Your task to perform on an android device: Open internet settings Image 0: 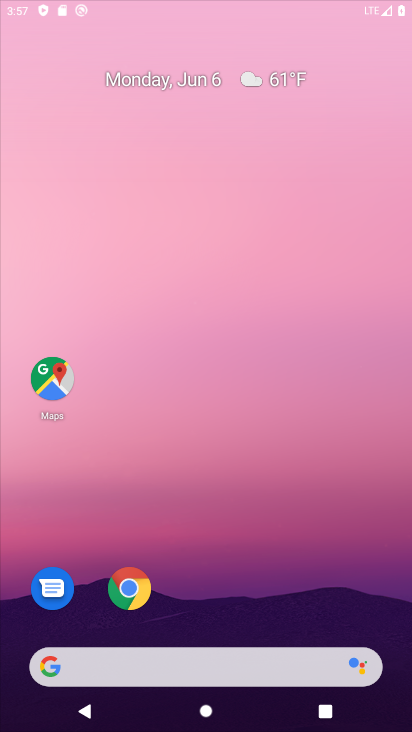
Step 0: click (252, 36)
Your task to perform on an android device: Open internet settings Image 1: 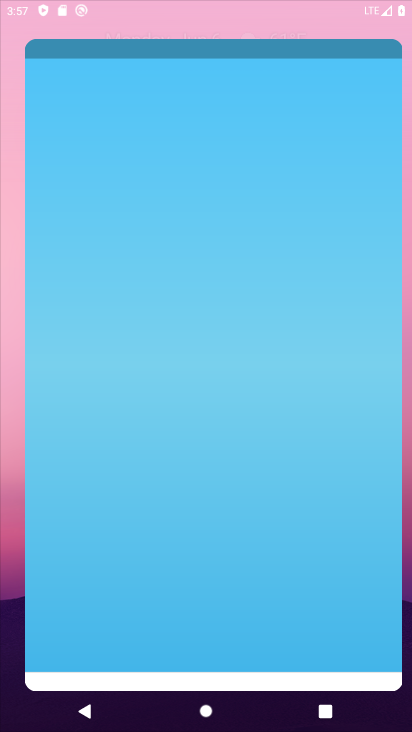
Step 1: drag from (235, 715) to (170, 37)
Your task to perform on an android device: Open internet settings Image 2: 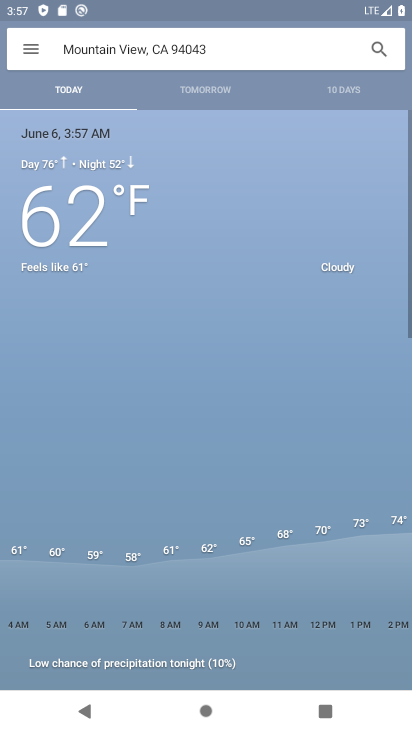
Step 2: press back button
Your task to perform on an android device: Open internet settings Image 3: 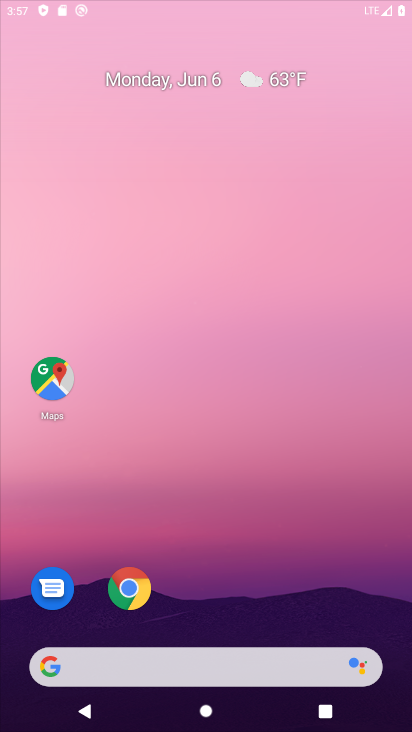
Step 3: click (216, 45)
Your task to perform on an android device: Open internet settings Image 4: 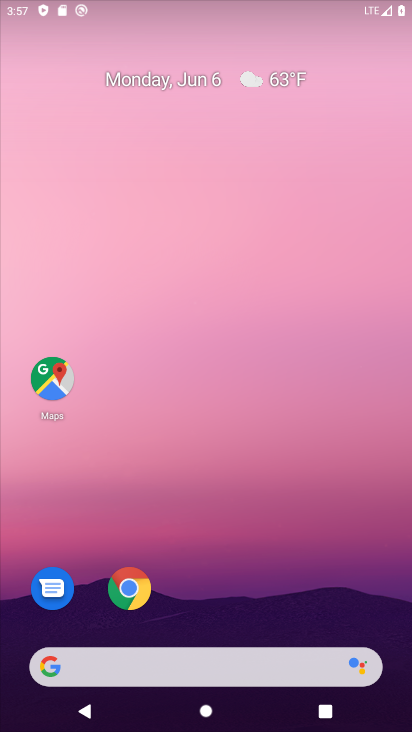
Step 4: press home button
Your task to perform on an android device: Open internet settings Image 5: 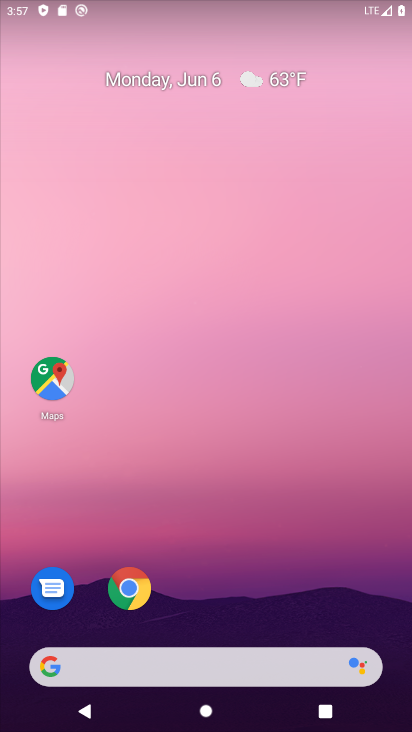
Step 5: click (171, 25)
Your task to perform on an android device: Open internet settings Image 6: 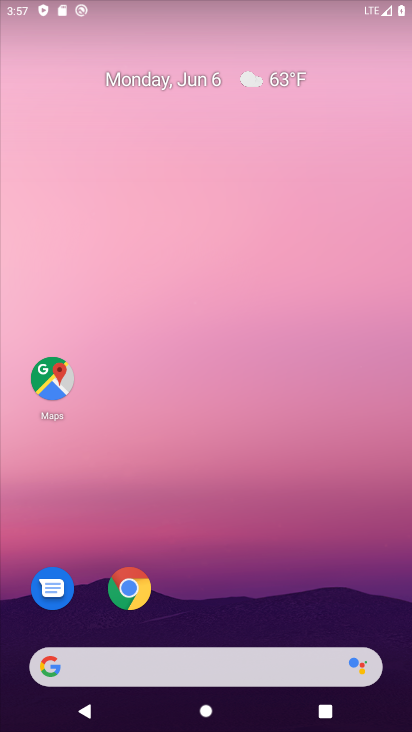
Step 6: drag from (229, 656) to (121, 99)
Your task to perform on an android device: Open internet settings Image 7: 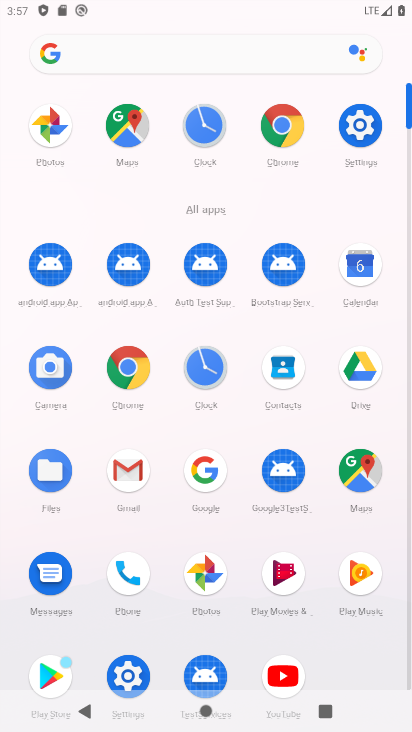
Step 7: click (377, 93)
Your task to perform on an android device: Open internet settings Image 8: 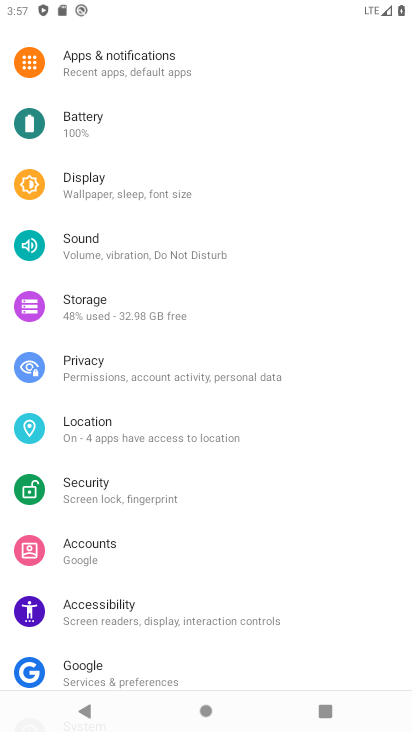
Step 8: drag from (118, 104) to (135, 697)
Your task to perform on an android device: Open internet settings Image 9: 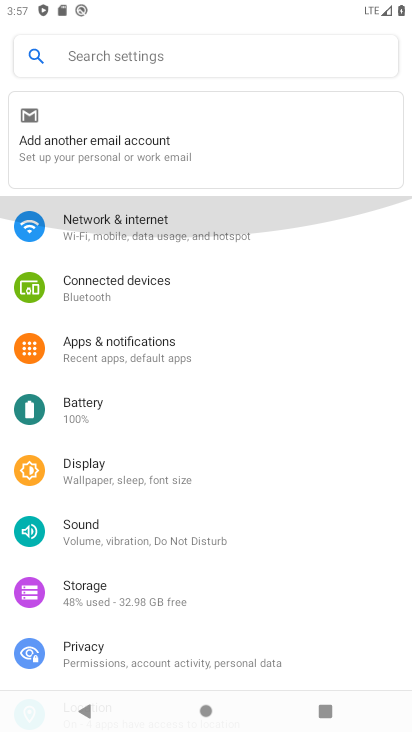
Step 9: drag from (56, 192) to (170, 564)
Your task to perform on an android device: Open internet settings Image 10: 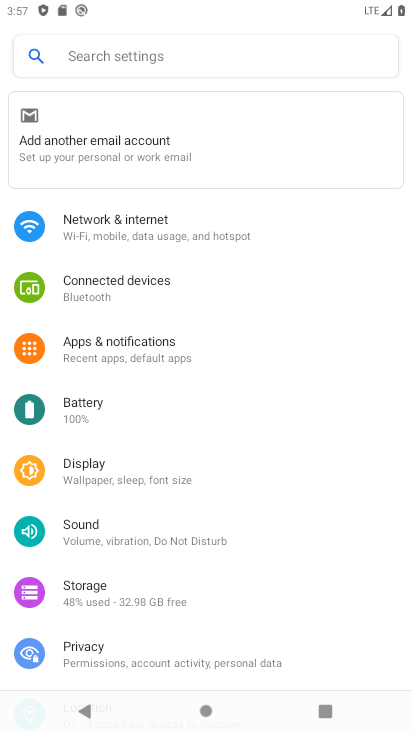
Step 10: click (115, 234)
Your task to perform on an android device: Open internet settings Image 11: 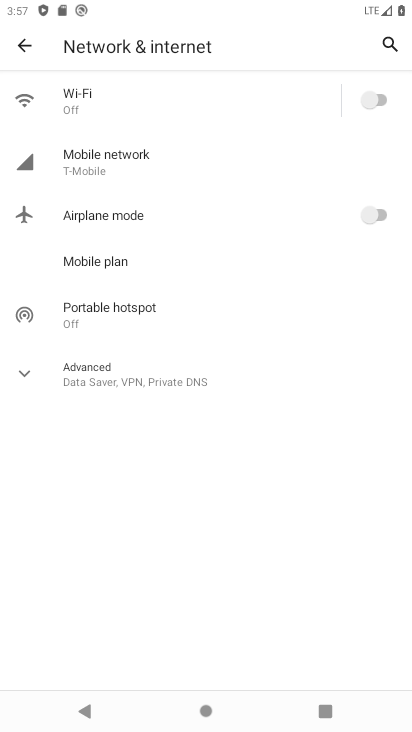
Step 11: task complete